Your task to perform on an android device: open app "NewsBreak: Local News & Alerts" (install if not already installed) Image 0: 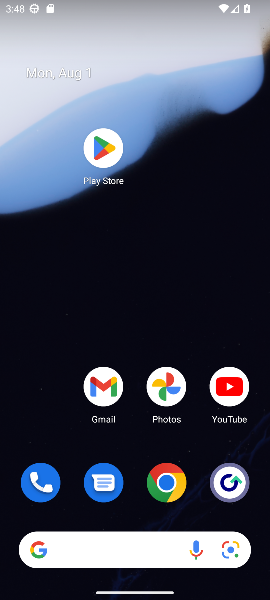
Step 0: press home button
Your task to perform on an android device: open app "NewsBreak: Local News & Alerts" (install if not already installed) Image 1: 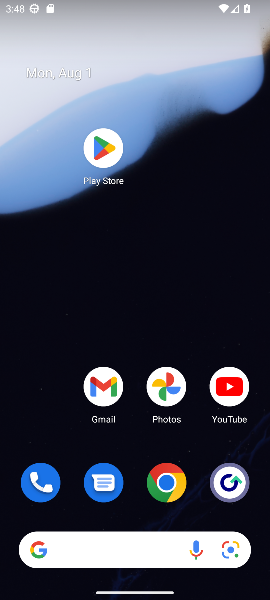
Step 1: click (107, 153)
Your task to perform on an android device: open app "NewsBreak: Local News & Alerts" (install if not already installed) Image 2: 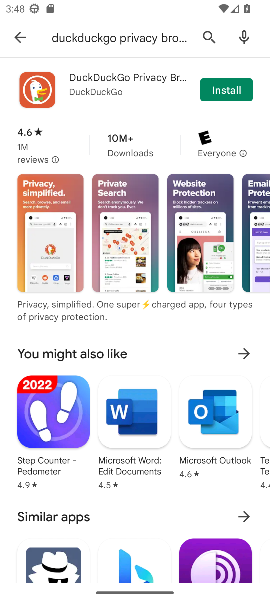
Step 2: click (205, 33)
Your task to perform on an android device: open app "NewsBreak: Local News & Alerts" (install if not already installed) Image 3: 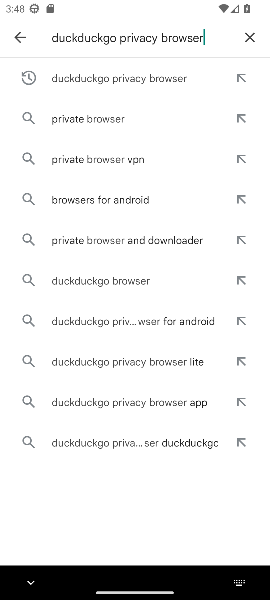
Step 3: click (247, 31)
Your task to perform on an android device: open app "NewsBreak: Local News & Alerts" (install if not already installed) Image 4: 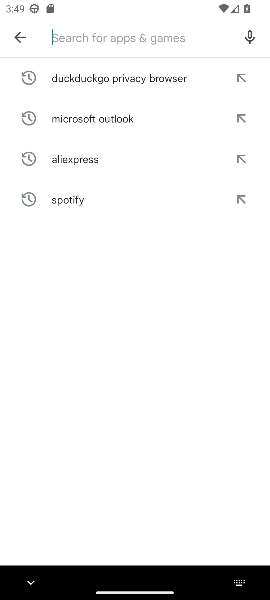
Step 4: type "NewsBreak: Local News & Alerts"
Your task to perform on an android device: open app "NewsBreak: Local News & Alerts" (install if not already installed) Image 5: 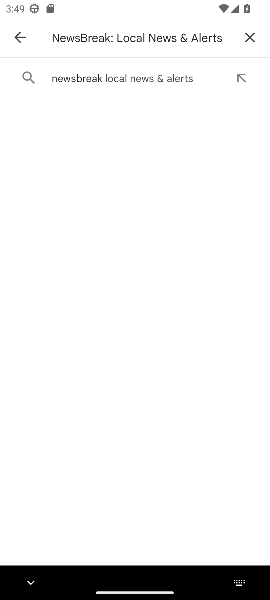
Step 5: click (118, 75)
Your task to perform on an android device: open app "NewsBreak: Local News & Alerts" (install if not already installed) Image 6: 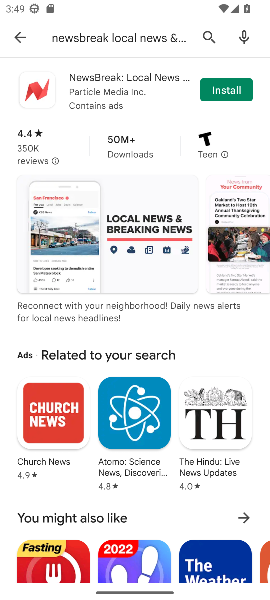
Step 6: click (235, 87)
Your task to perform on an android device: open app "NewsBreak: Local News & Alerts" (install if not already installed) Image 7: 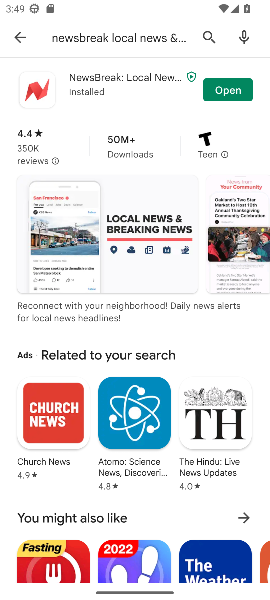
Step 7: click (233, 84)
Your task to perform on an android device: open app "NewsBreak: Local News & Alerts" (install if not already installed) Image 8: 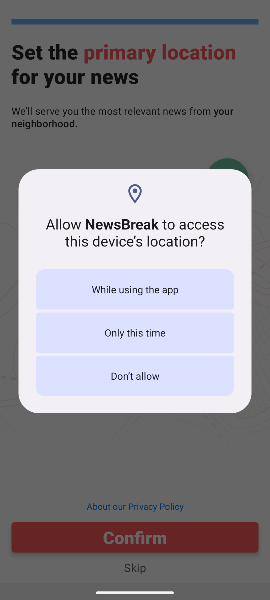
Step 8: task complete